Your task to perform on an android device: change alarm snooze length Image 0: 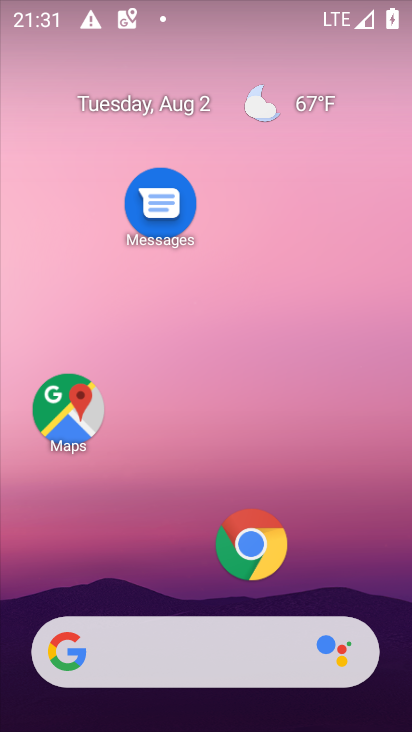
Step 0: drag from (170, 590) to (180, 150)
Your task to perform on an android device: change alarm snooze length Image 1: 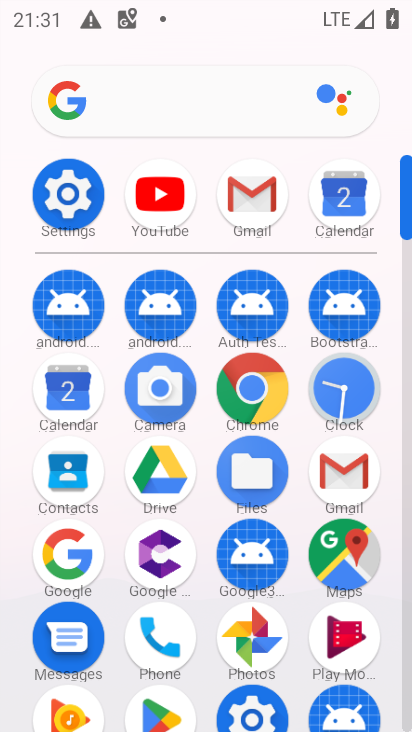
Step 1: click (322, 382)
Your task to perform on an android device: change alarm snooze length Image 2: 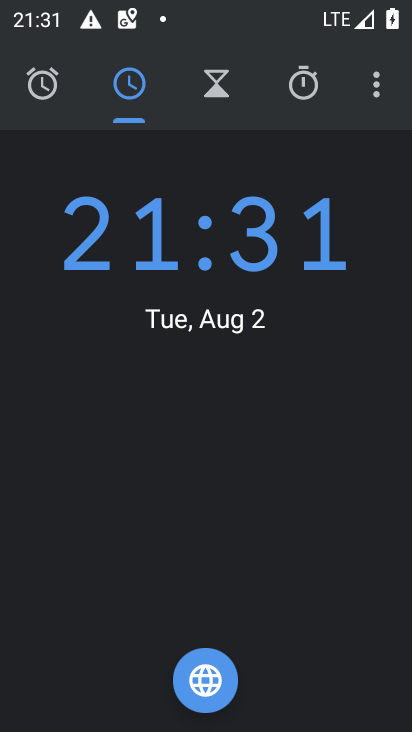
Step 2: click (367, 88)
Your task to perform on an android device: change alarm snooze length Image 3: 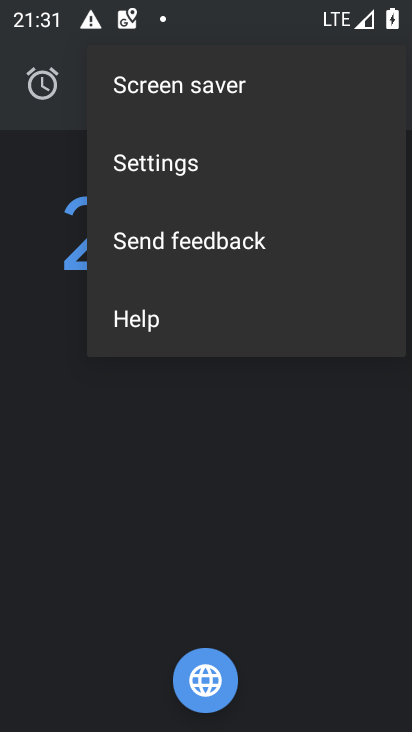
Step 3: click (183, 159)
Your task to perform on an android device: change alarm snooze length Image 4: 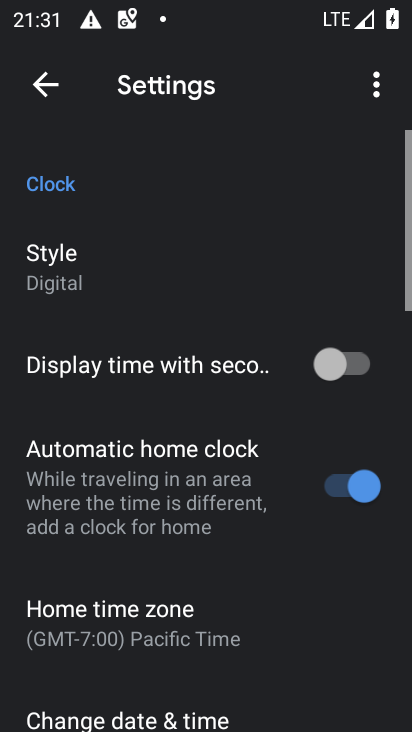
Step 4: drag from (220, 638) to (239, 193)
Your task to perform on an android device: change alarm snooze length Image 5: 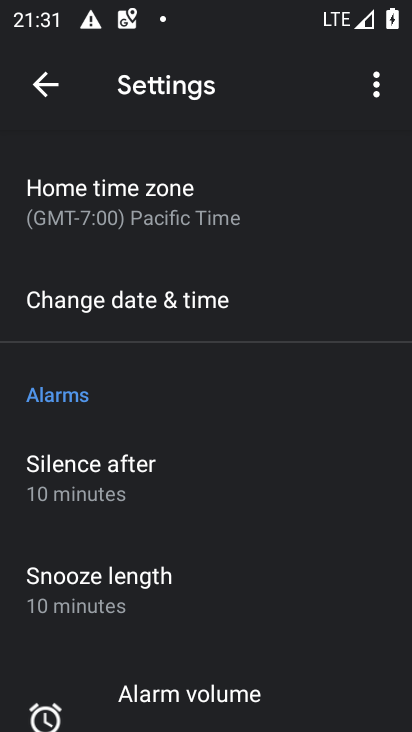
Step 5: click (167, 589)
Your task to perform on an android device: change alarm snooze length Image 6: 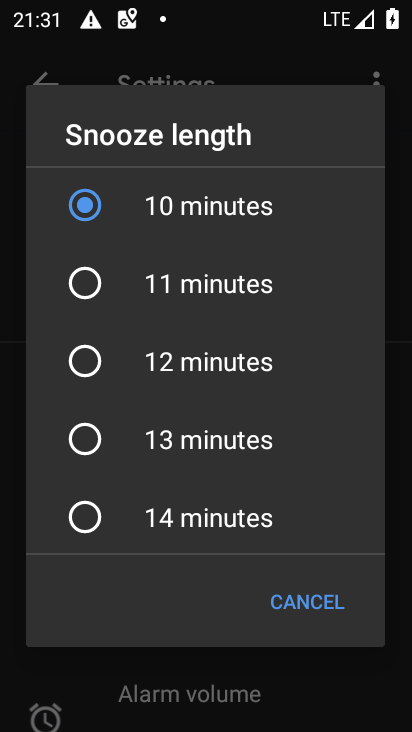
Step 6: click (179, 445)
Your task to perform on an android device: change alarm snooze length Image 7: 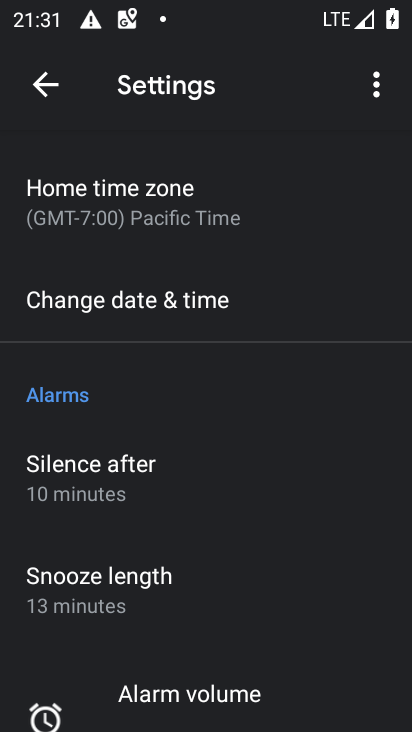
Step 7: task complete